Your task to perform on an android device: Open my contact list Image 0: 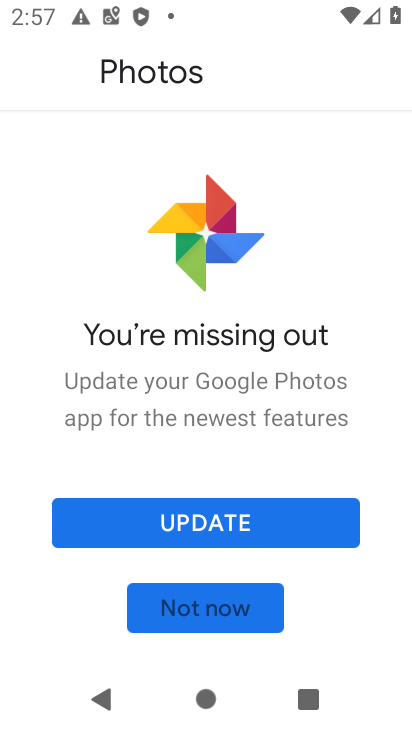
Step 0: press home button
Your task to perform on an android device: Open my contact list Image 1: 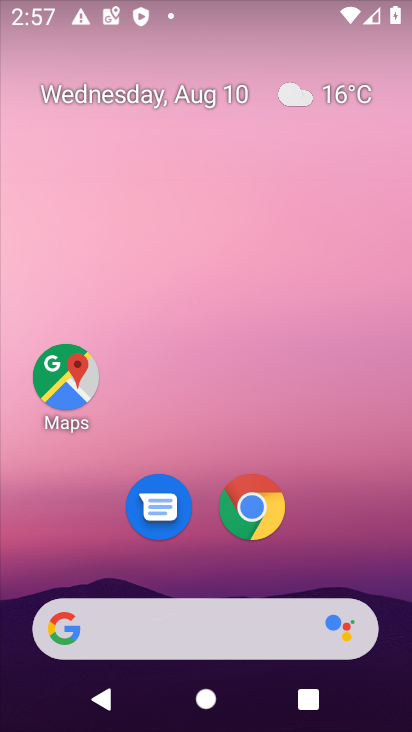
Step 1: drag from (355, 505) to (290, 5)
Your task to perform on an android device: Open my contact list Image 2: 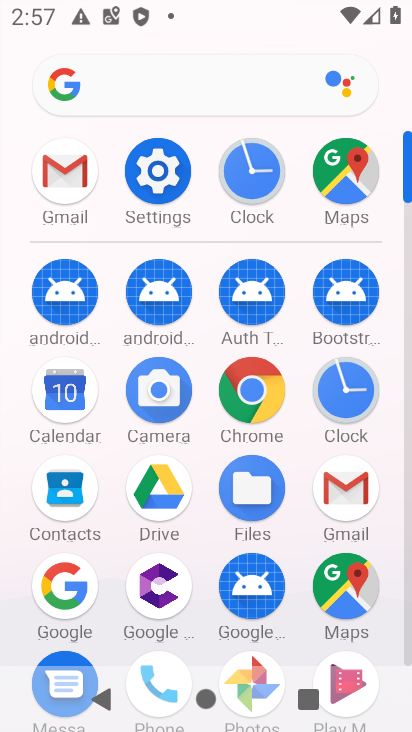
Step 2: click (84, 490)
Your task to perform on an android device: Open my contact list Image 3: 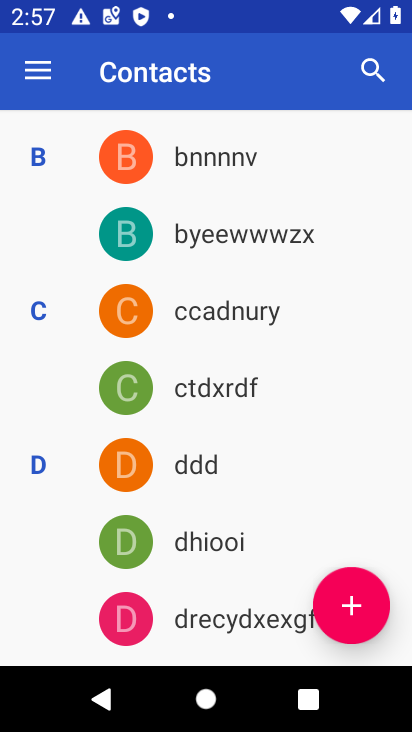
Step 3: task complete